Your task to perform on an android device: Open sound settings Image 0: 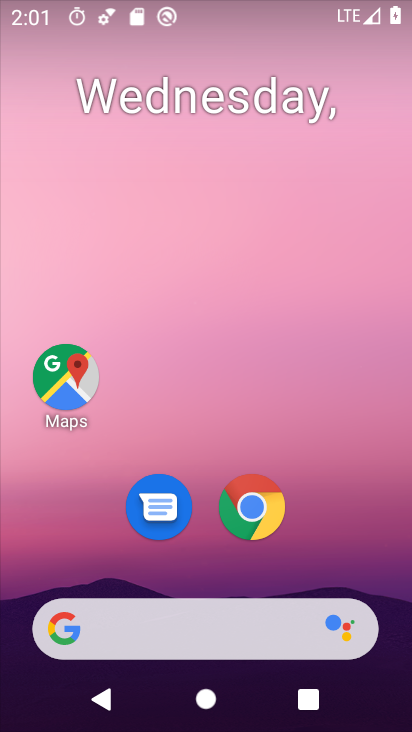
Step 0: drag from (228, 569) to (272, 92)
Your task to perform on an android device: Open sound settings Image 1: 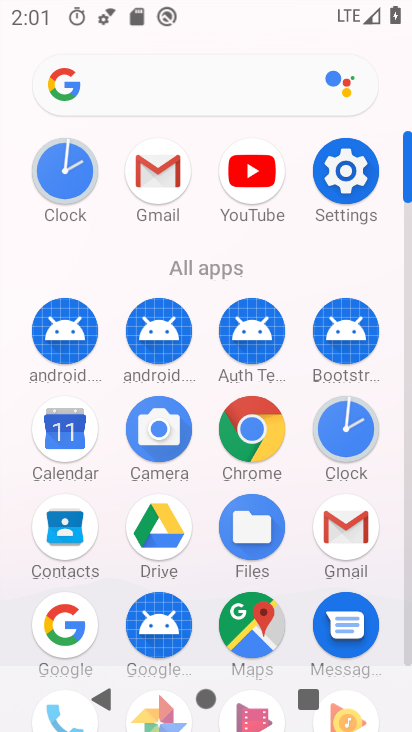
Step 1: click (350, 176)
Your task to perform on an android device: Open sound settings Image 2: 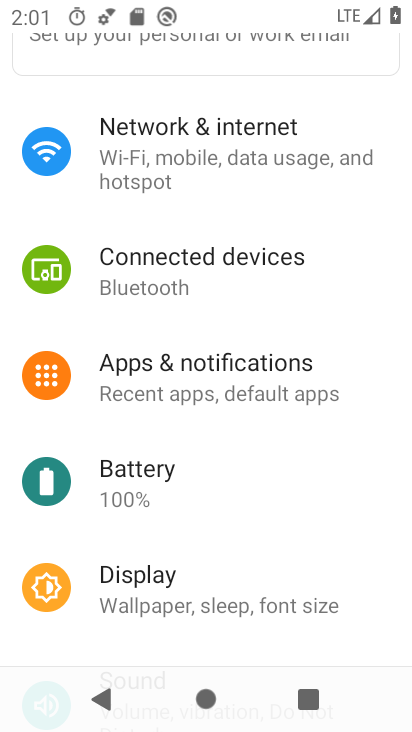
Step 2: drag from (226, 519) to (241, 132)
Your task to perform on an android device: Open sound settings Image 3: 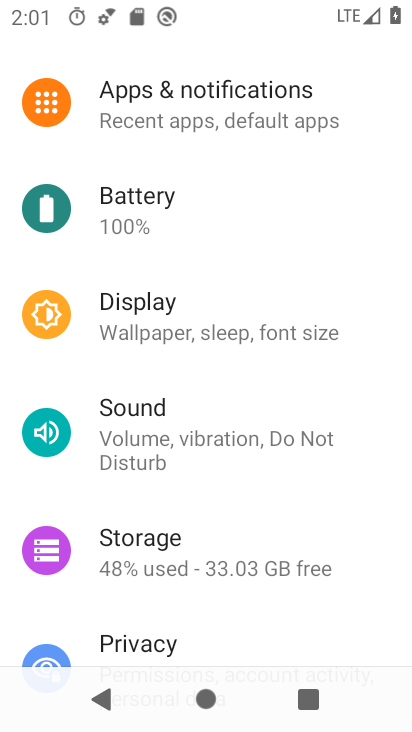
Step 3: click (176, 420)
Your task to perform on an android device: Open sound settings Image 4: 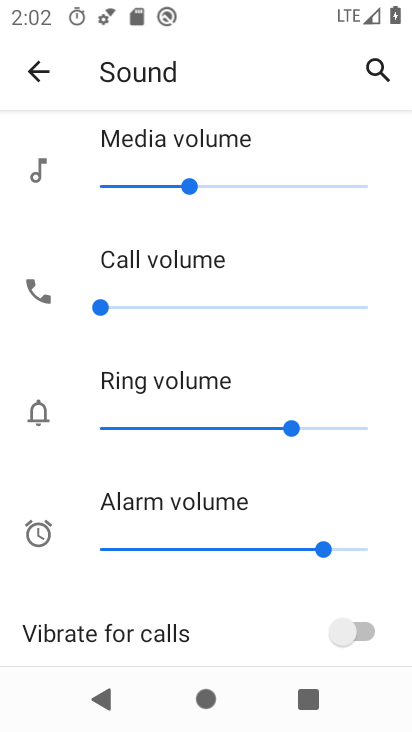
Step 4: task complete